Your task to perform on an android device: open app "Viber Messenger" (install if not already installed) Image 0: 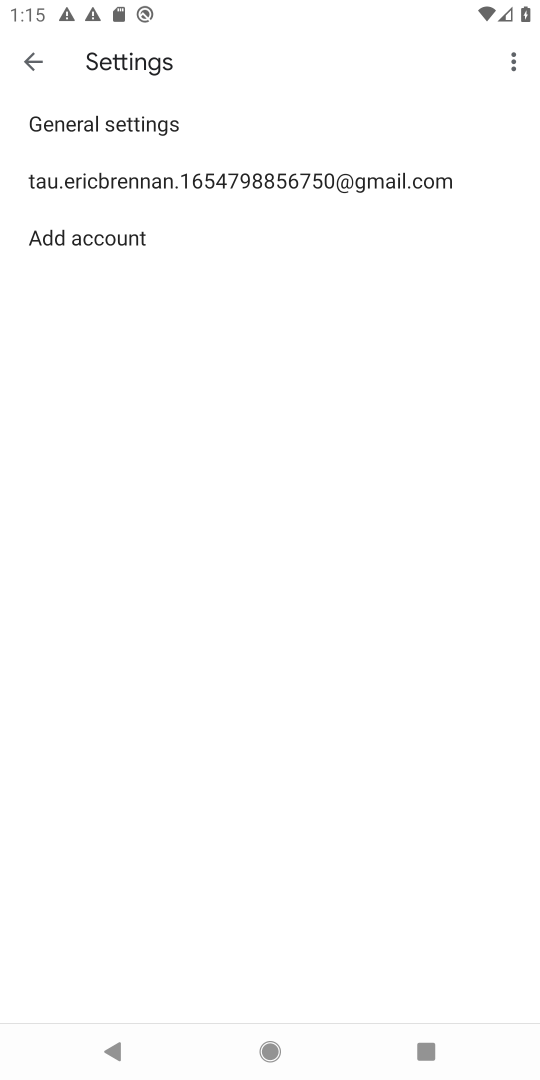
Step 0: press home button
Your task to perform on an android device: open app "Viber Messenger" (install if not already installed) Image 1: 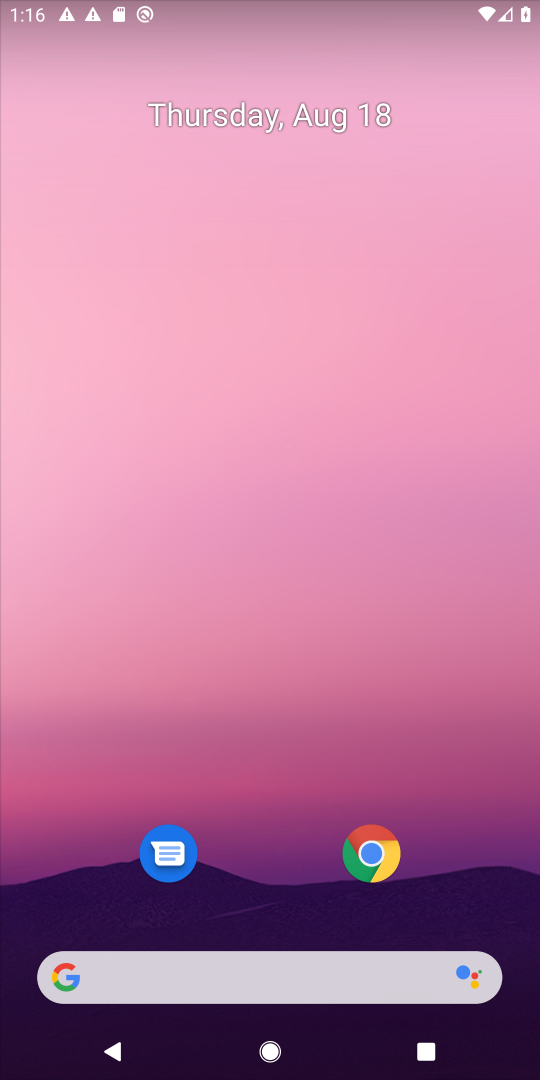
Step 1: drag from (262, 913) to (362, 5)
Your task to perform on an android device: open app "Viber Messenger" (install if not already installed) Image 2: 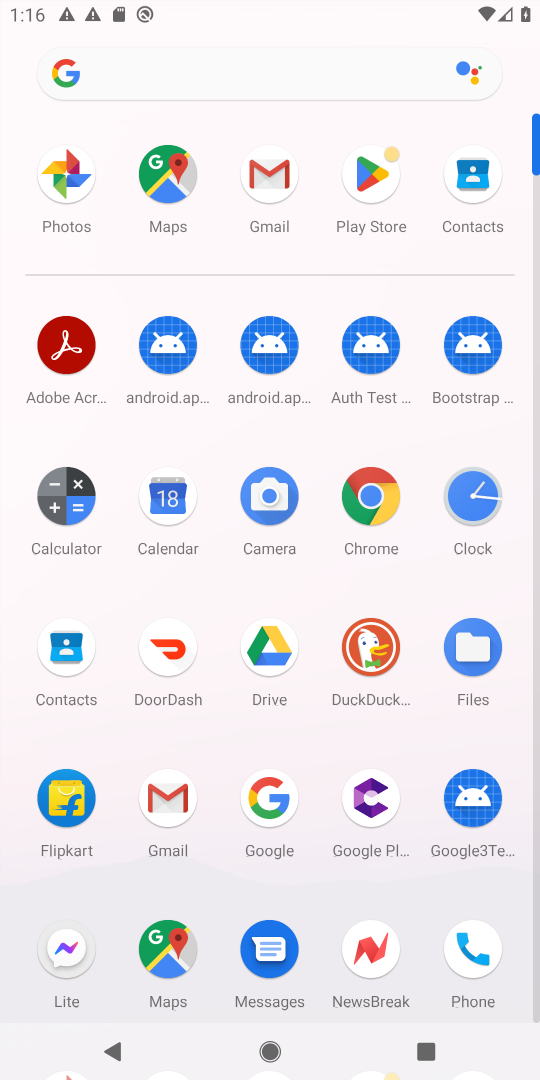
Step 2: click (378, 198)
Your task to perform on an android device: open app "Viber Messenger" (install if not already installed) Image 3: 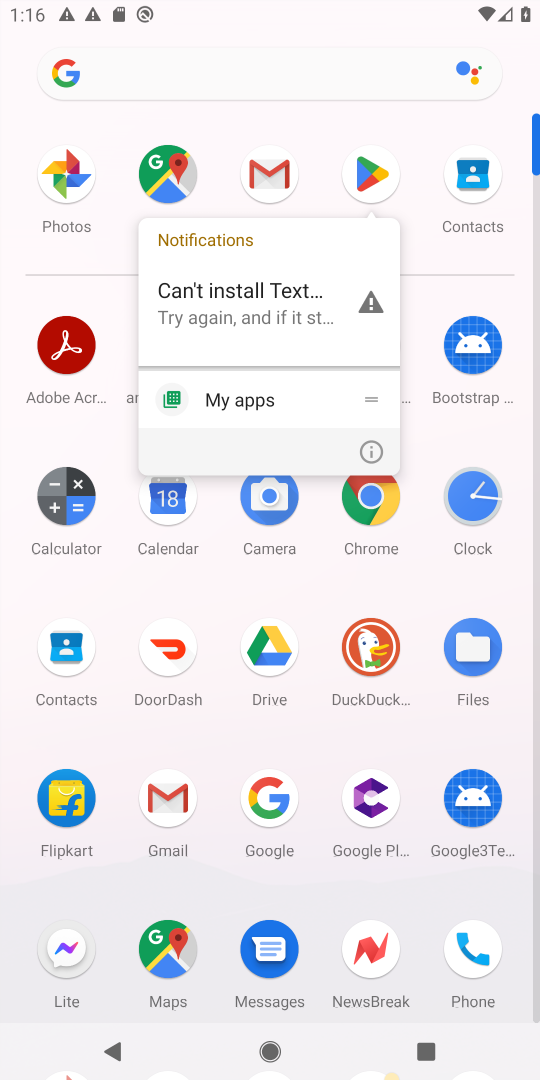
Step 3: click (378, 198)
Your task to perform on an android device: open app "Viber Messenger" (install if not already installed) Image 4: 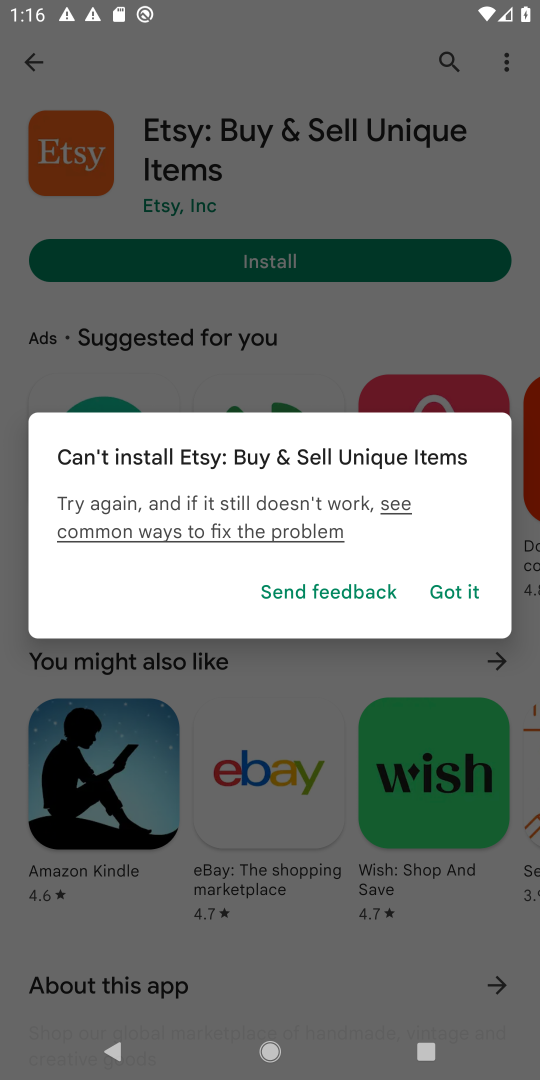
Step 4: click (471, 590)
Your task to perform on an android device: open app "Viber Messenger" (install if not already installed) Image 5: 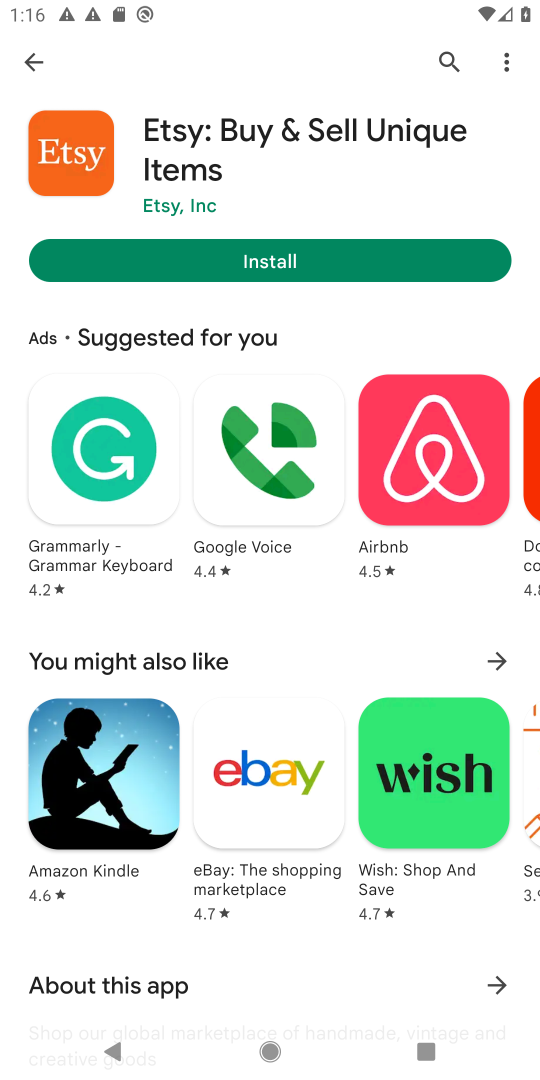
Step 5: click (47, 61)
Your task to perform on an android device: open app "Viber Messenger" (install if not already installed) Image 6: 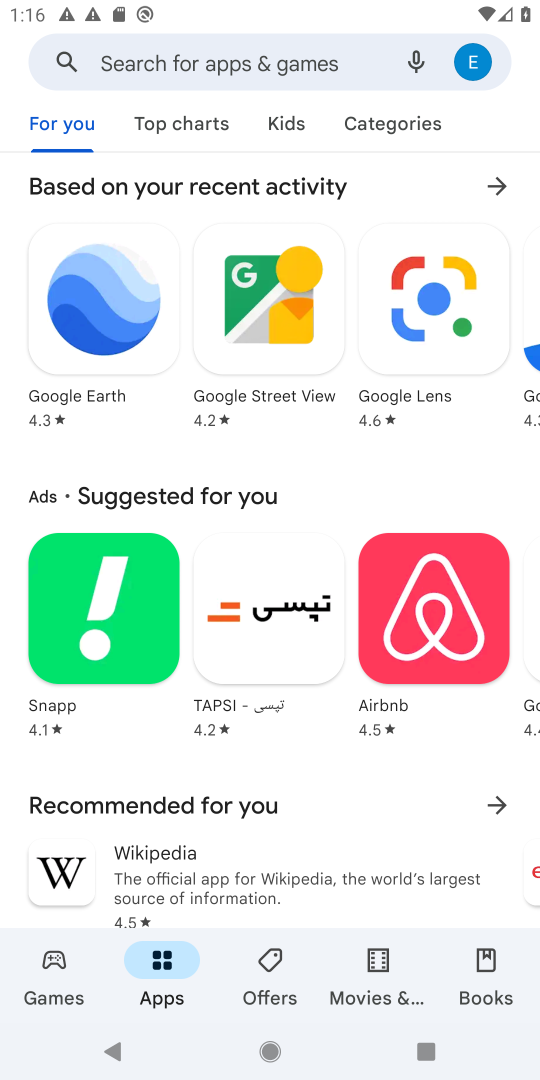
Step 6: click (233, 55)
Your task to perform on an android device: open app "Viber Messenger" (install if not already installed) Image 7: 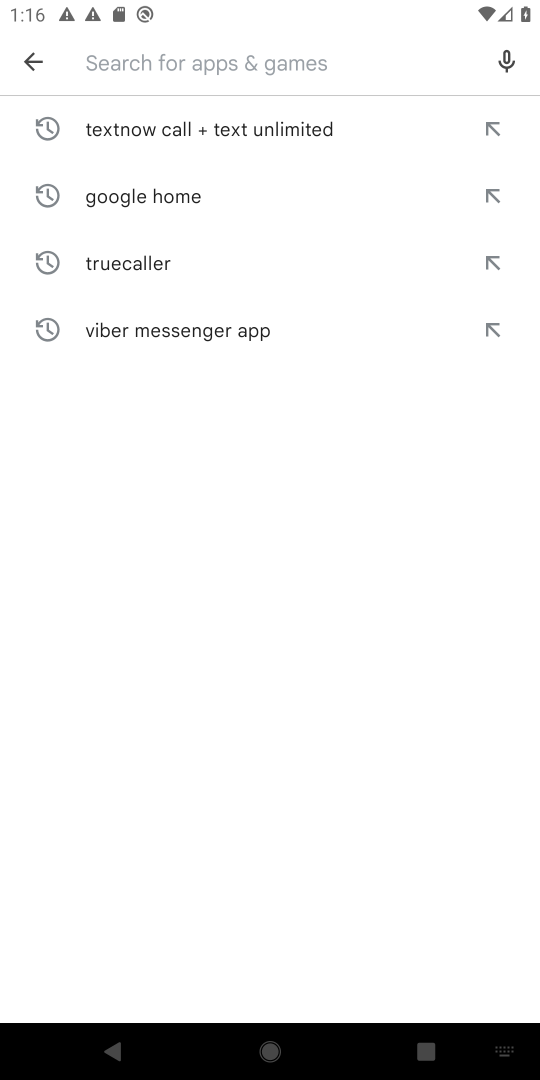
Step 7: type "Viber Messenger"
Your task to perform on an android device: open app "Viber Messenger" (install if not already installed) Image 8: 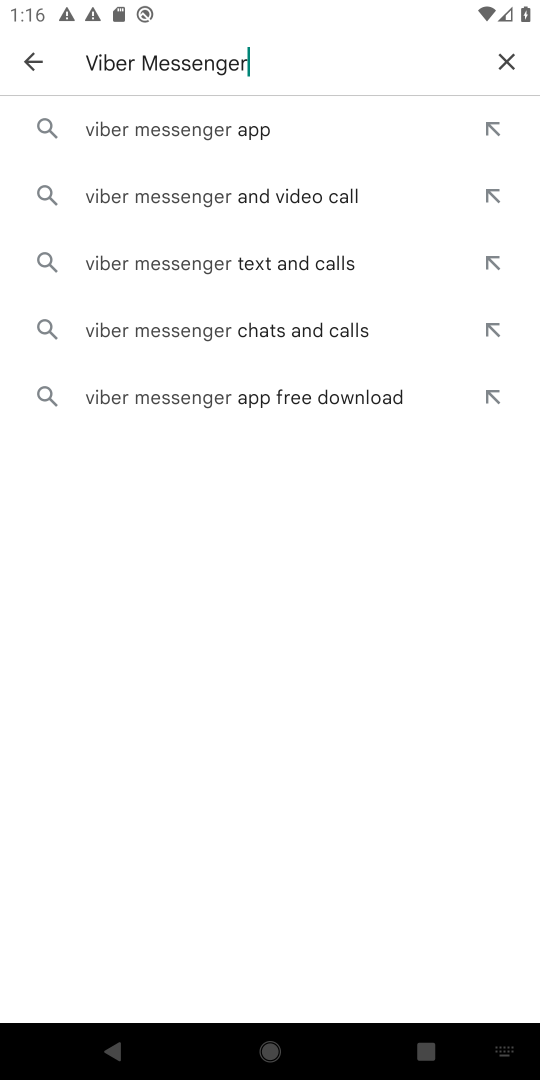
Step 8: click (177, 138)
Your task to perform on an android device: open app "Viber Messenger" (install if not already installed) Image 9: 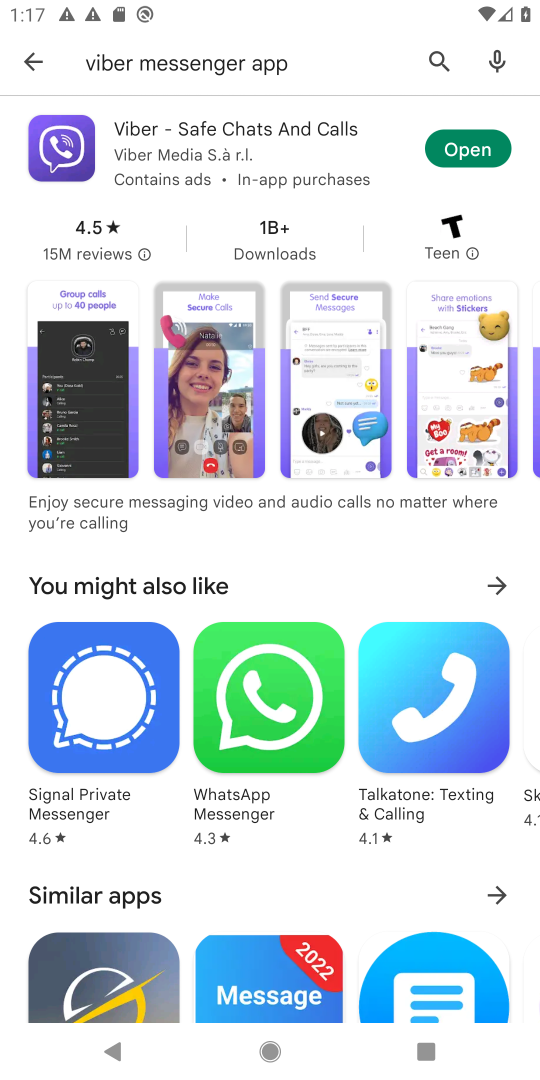
Step 9: click (455, 155)
Your task to perform on an android device: open app "Viber Messenger" (install if not already installed) Image 10: 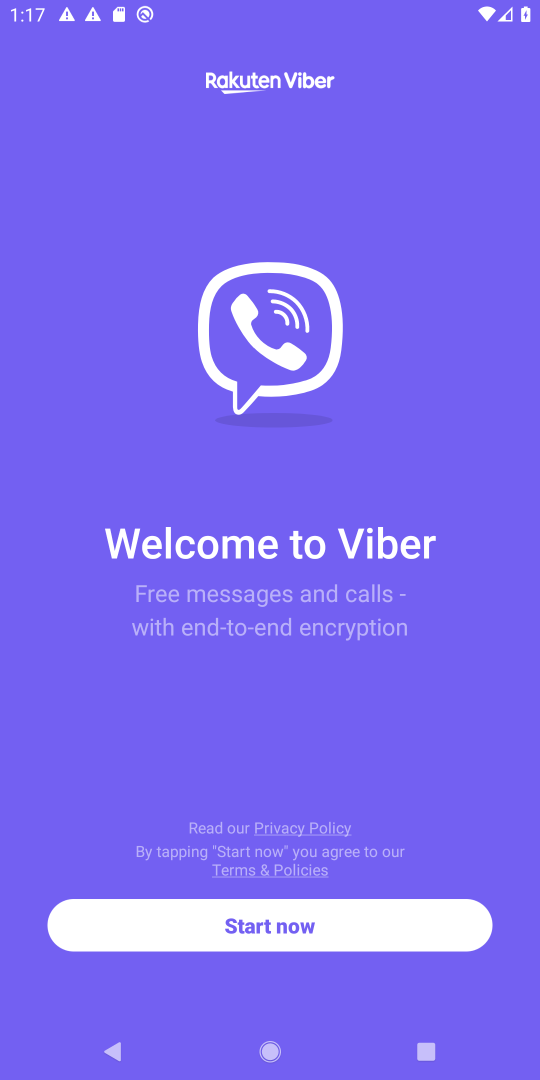
Step 10: task complete